Your task to perform on an android device: change alarm snooze length Image 0: 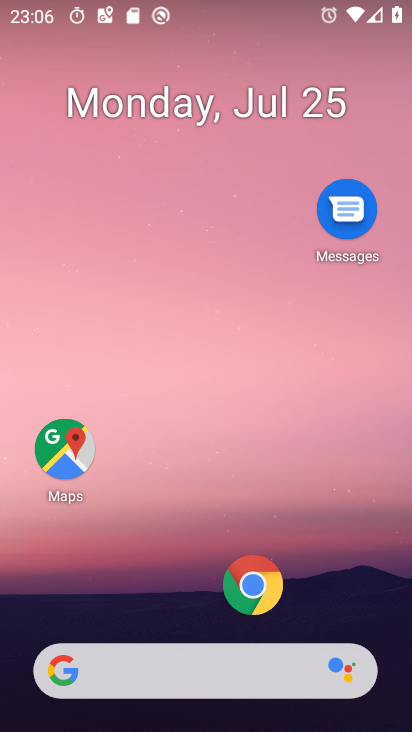
Step 0: press home button
Your task to perform on an android device: change alarm snooze length Image 1: 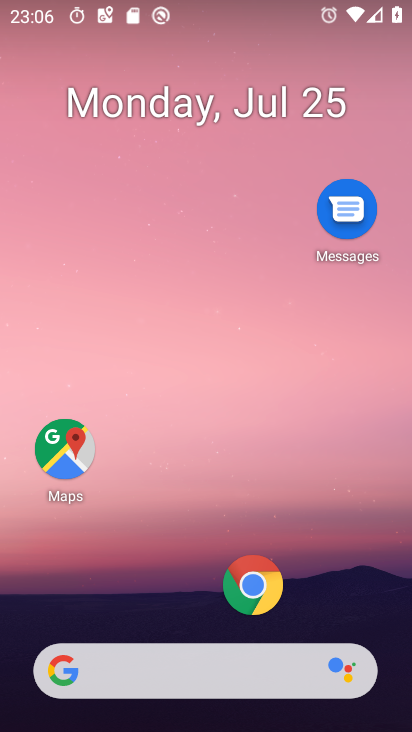
Step 1: drag from (186, 677) to (293, 175)
Your task to perform on an android device: change alarm snooze length Image 2: 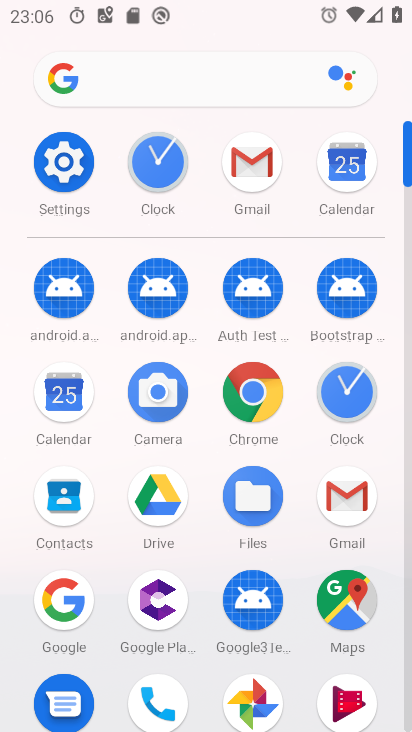
Step 2: click (350, 390)
Your task to perform on an android device: change alarm snooze length Image 3: 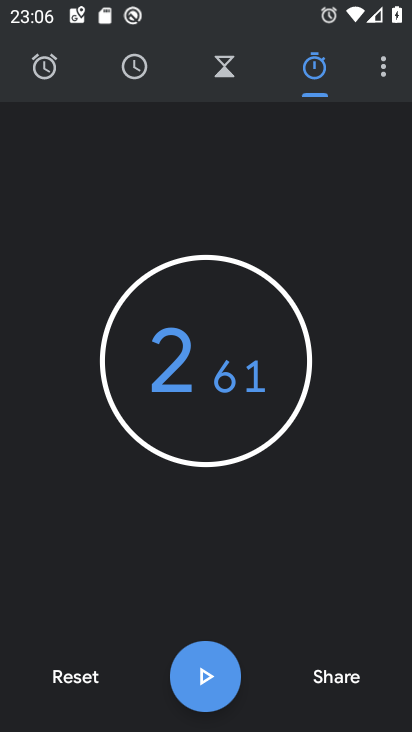
Step 3: click (384, 66)
Your task to perform on an android device: change alarm snooze length Image 4: 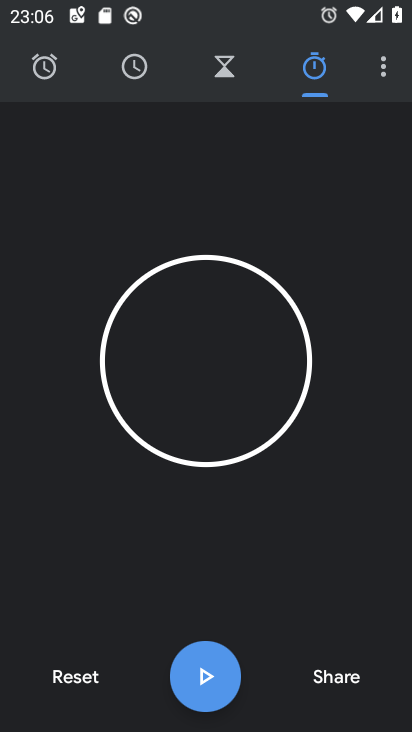
Step 4: click (381, 72)
Your task to perform on an android device: change alarm snooze length Image 5: 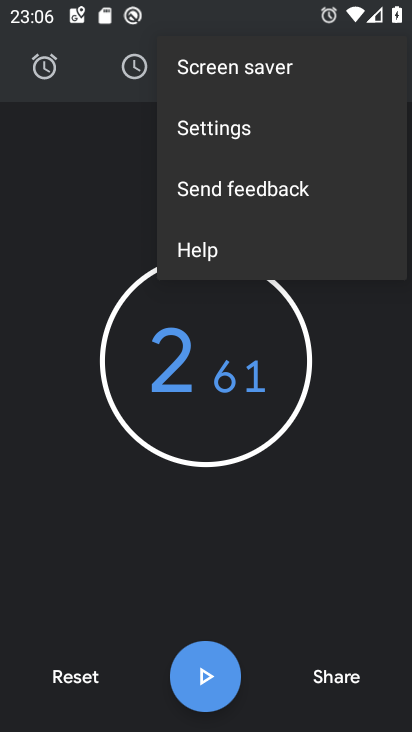
Step 5: click (259, 144)
Your task to perform on an android device: change alarm snooze length Image 6: 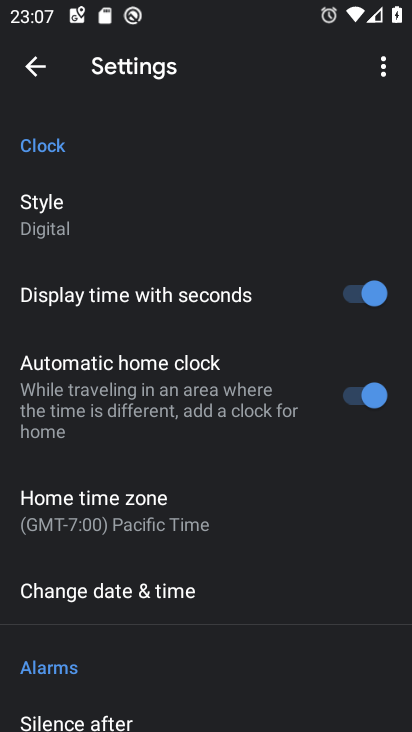
Step 6: drag from (158, 620) to (282, 125)
Your task to perform on an android device: change alarm snooze length Image 7: 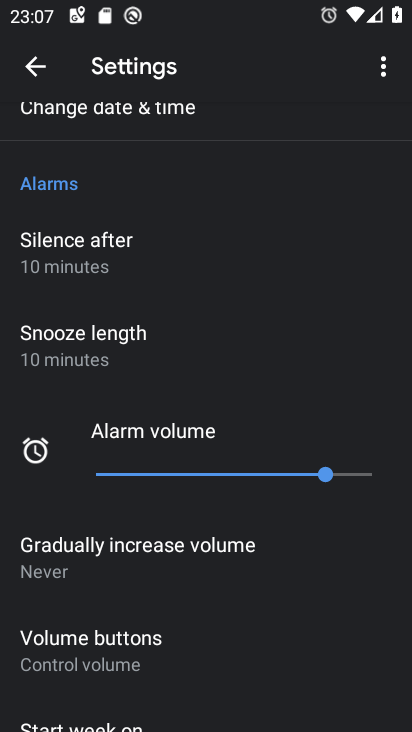
Step 7: click (108, 353)
Your task to perform on an android device: change alarm snooze length Image 8: 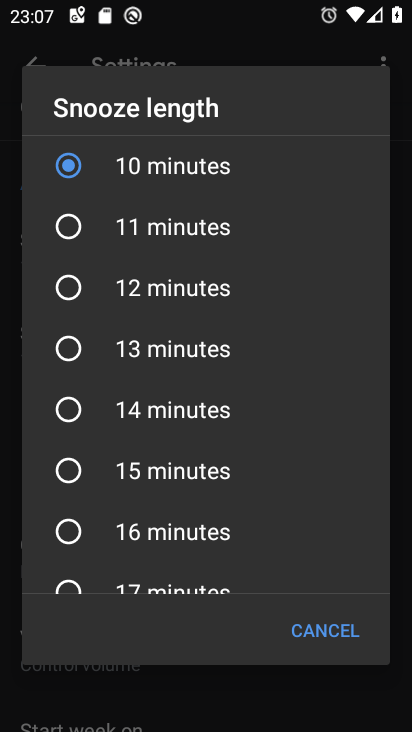
Step 8: click (74, 463)
Your task to perform on an android device: change alarm snooze length Image 9: 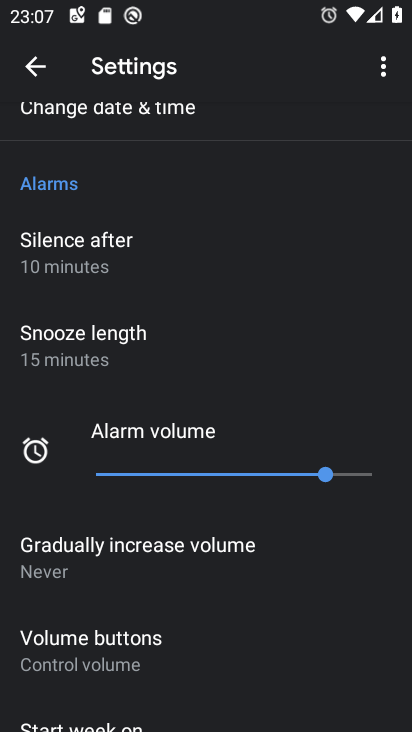
Step 9: task complete